Your task to perform on an android device: change your default location settings in chrome Image 0: 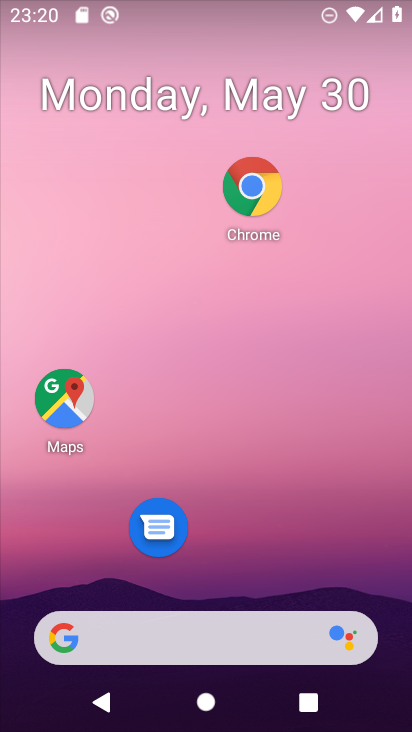
Step 0: click (251, 187)
Your task to perform on an android device: change your default location settings in chrome Image 1: 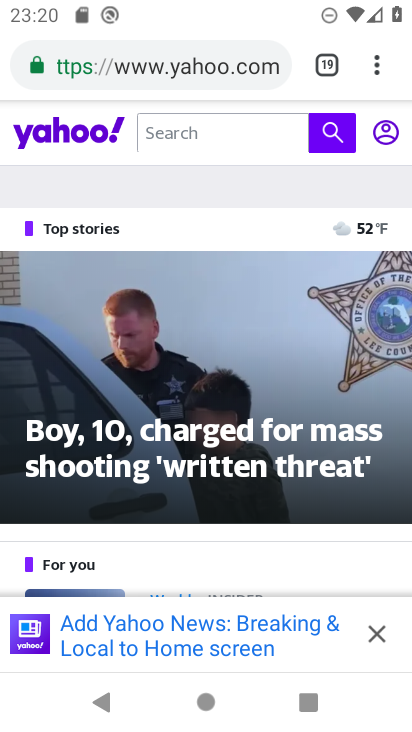
Step 1: click (370, 60)
Your task to perform on an android device: change your default location settings in chrome Image 2: 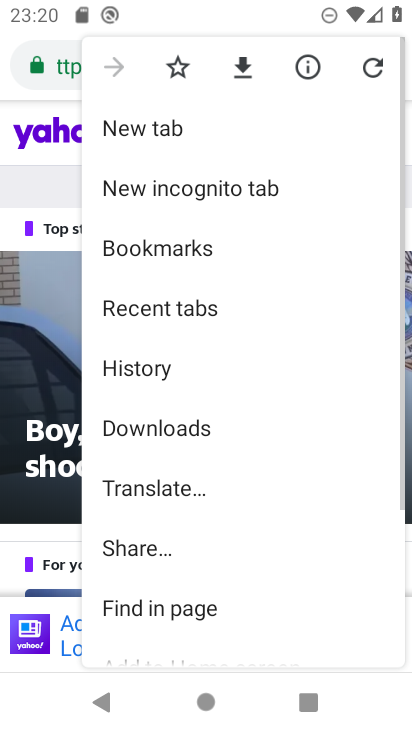
Step 2: drag from (205, 597) to (240, 292)
Your task to perform on an android device: change your default location settings in chrome Image 3: 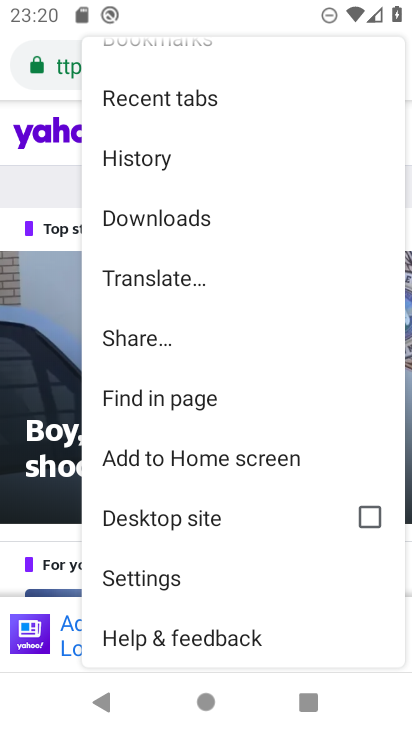
Step 3: click (199, 578)
Your task to perform on an android device: change your default location settings in chrome Image 4: 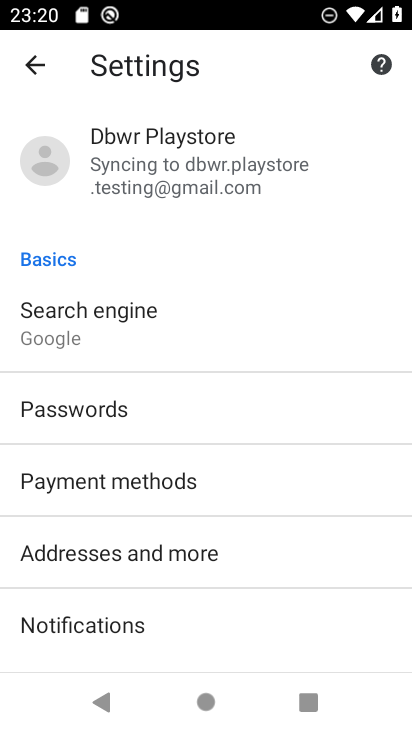
Step 4: drag from (198, 571) to (206, 281)
Your task to perform on an android device: change your default location settings in chrome Image 5: 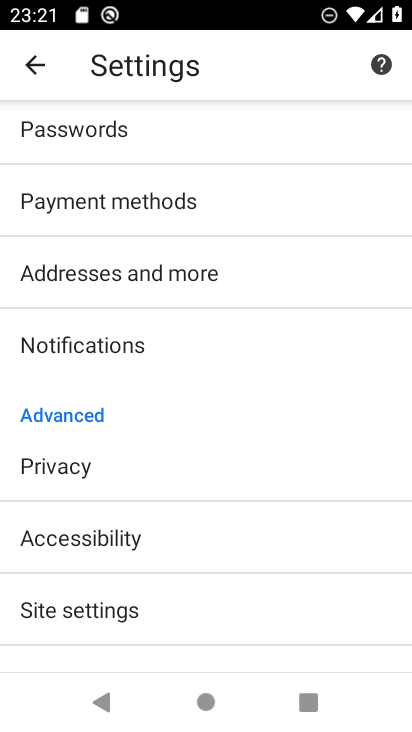
Step 5: drag from (207, 571) to (206, 361)
Your task to perform on an android device: change your default location settings in chrome Image 6: 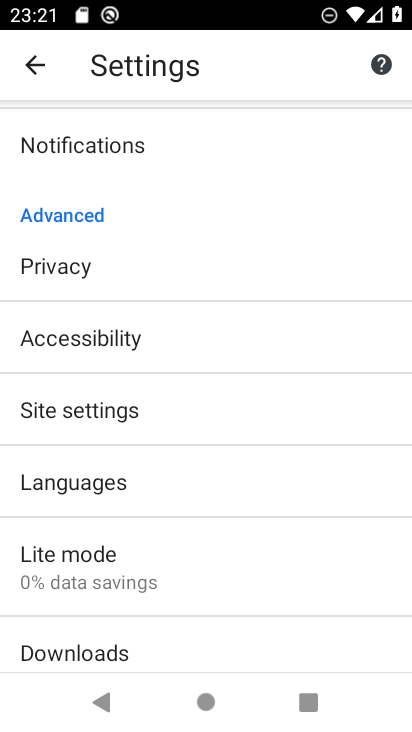
Step 6: click (97, 411)
Your task to perform on an android device: change your default location settings in chrome Image 7: 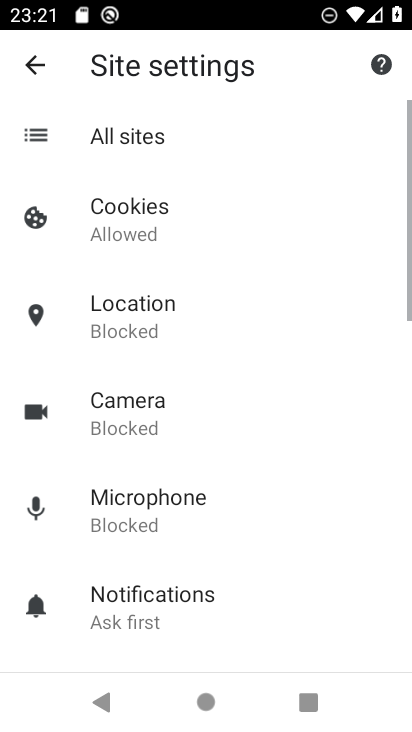
Step 7: click (162, 307)
Your task to perform on an android device: change your default location settings in chrome Image 8: 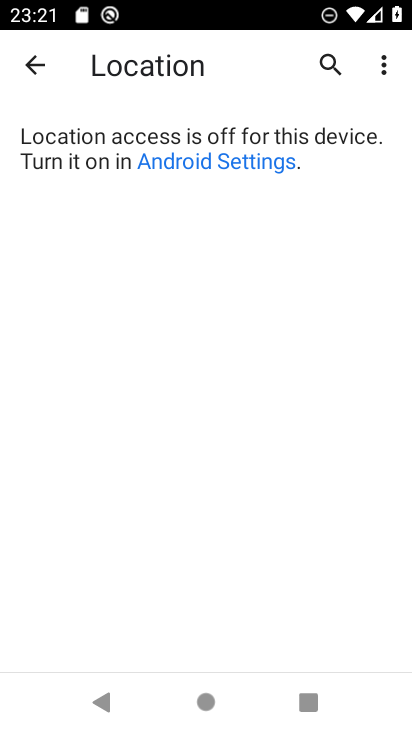
Step 8: task complete